Your task to perform on an android device: move an email to a new category in the gmail app Image 0: 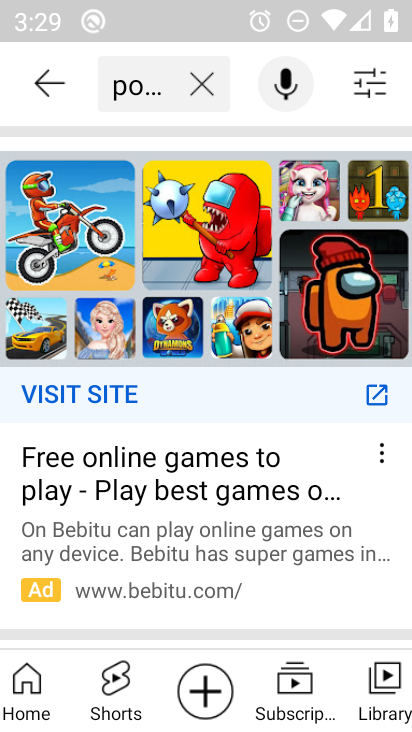
Step 0: press home button
Your task to perform on an android device: move an email to a new category in the gmail app Image 1: 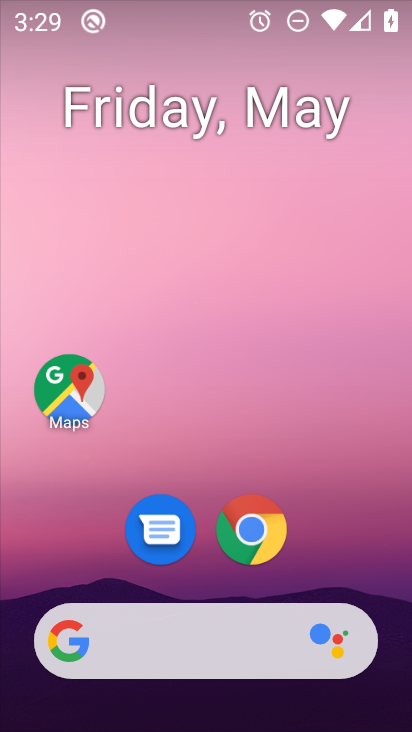
Step 1: drag from (397, 685) to (368, 210)
Your task to perform on an android device: move an email to a new category in the gmail app Image 2: 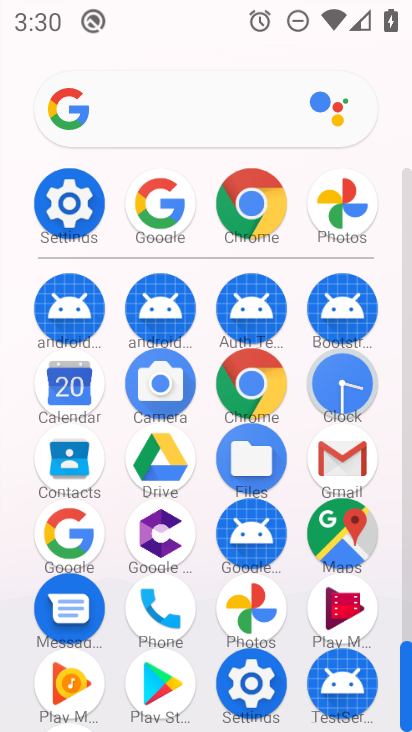
Step 2: click (331, 447)
Your task to perform on an android device: move an email to a new category in the gmail app Image 3: 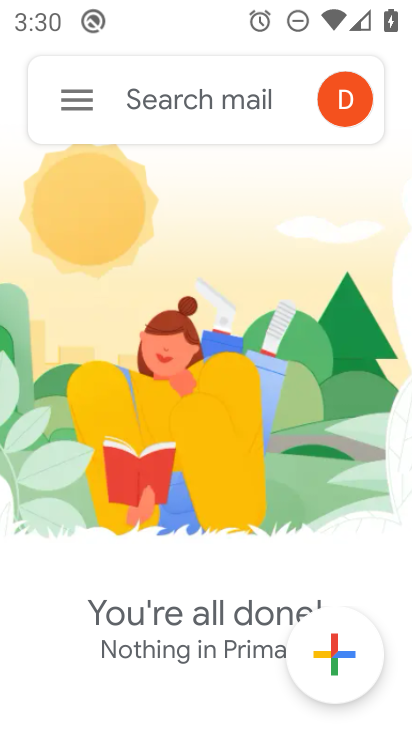
Step 3: click (67, 104)
Your task to perform on an android device: move an email to a new category in the gmail app Image 4: 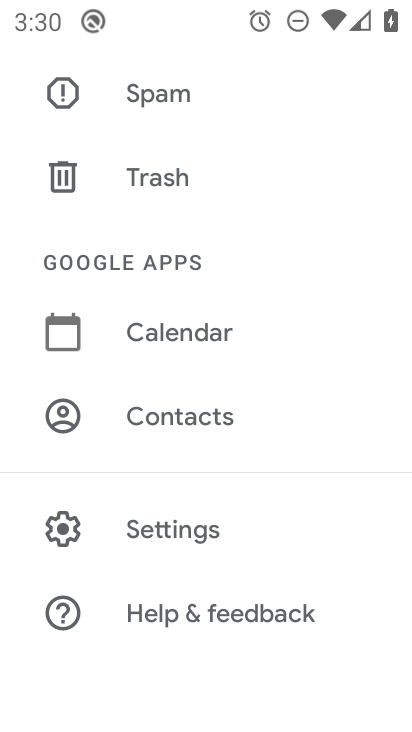
Step 4: drag from (324, 126) to (361, 722)
Your task to perform on an android device: move an email to a new category in the gmail app Image 5: 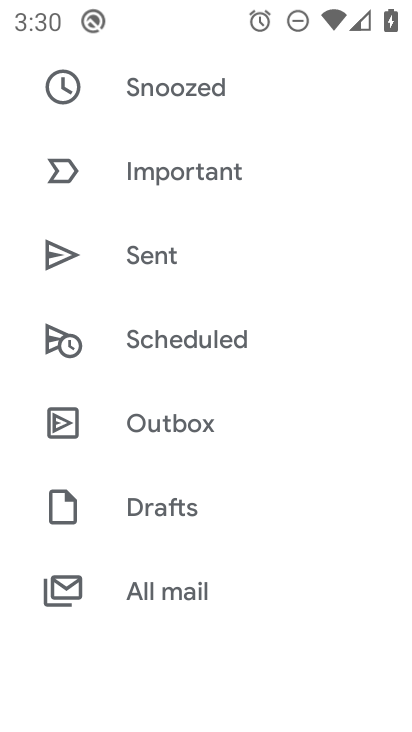
Step 5: drag from (321, 90) to (376, 540)
Your task to perform on an android device: move an email to a new category in the gmail app Image 6: 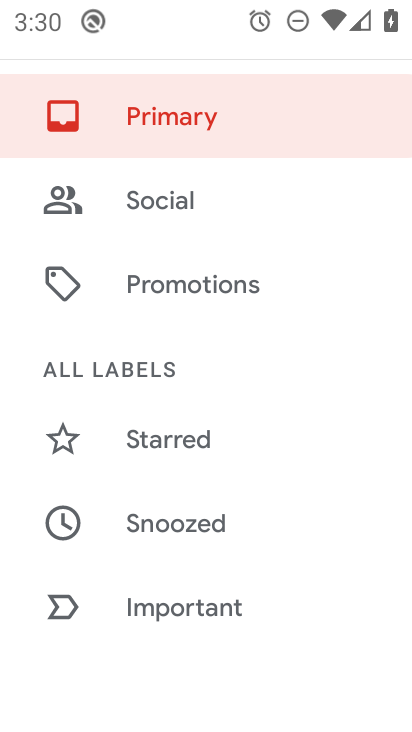
Step 6: click (169, 110)
Your task to perform on an android device: move an email to a new category in the gmail app Image 7: 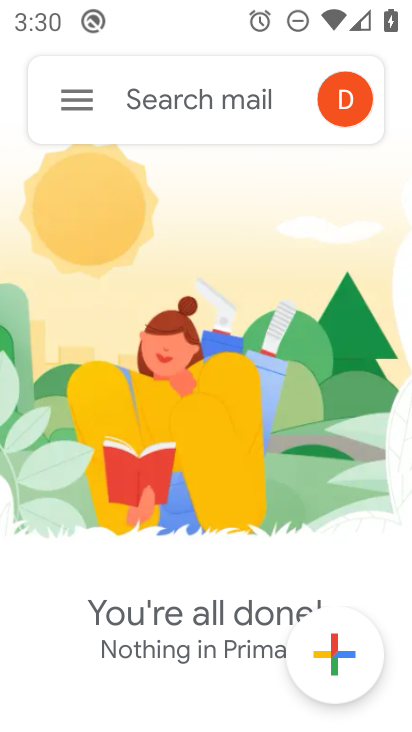
Step 7: click (64, 98)
Your task to perform on an android device: move an email to a new category in the gmail app Image 8: 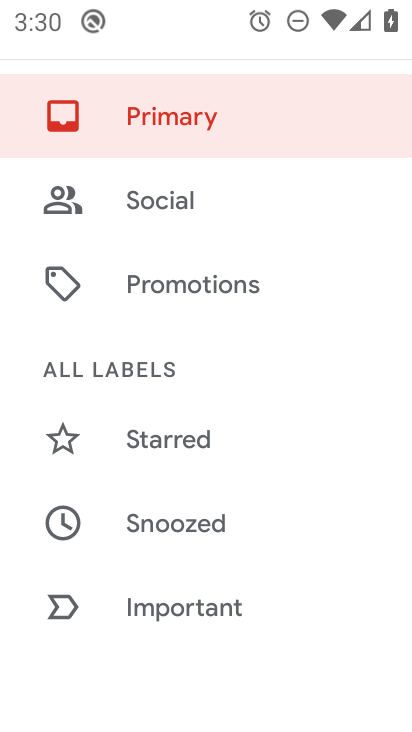
Step 8: click (167, 116)
Your task to perform on an android device: move an email to a new category in the gmail app Image 9: 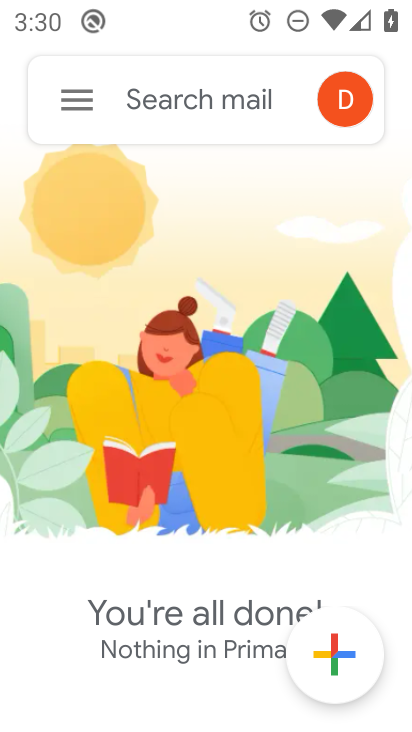
Step 9: task complete